Your task to perform on an android device: change keyboard looks Image 0: 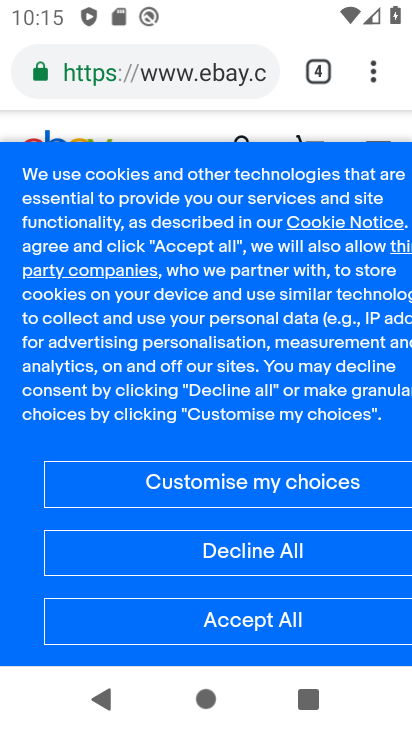
Step 0: press home button
Your task to perform on an android device: change keyboard looks Image 1: 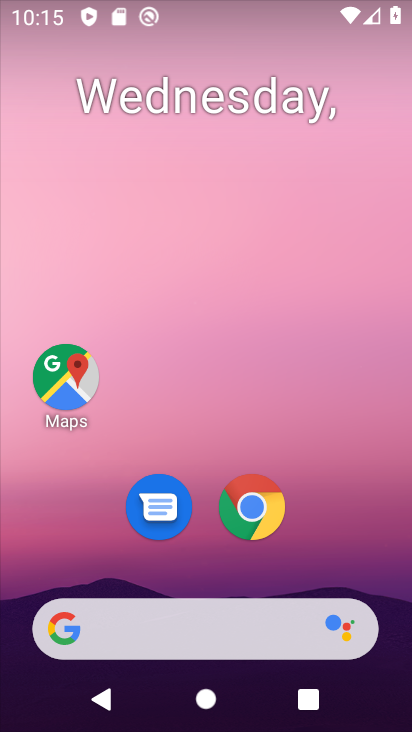
Step 1: drag from (332, 557) to (312, 191)
Your task to perform on an android device: change keyboard looks Image 2: 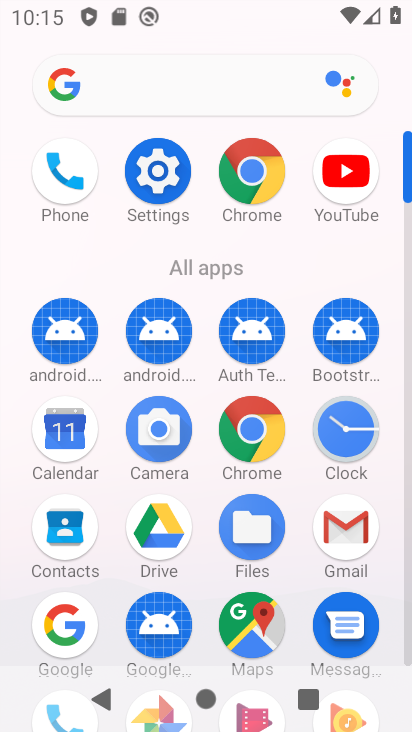
Step 2: click (138, 170)
Your task to perform on an android device: change keyboard looks Image 3: 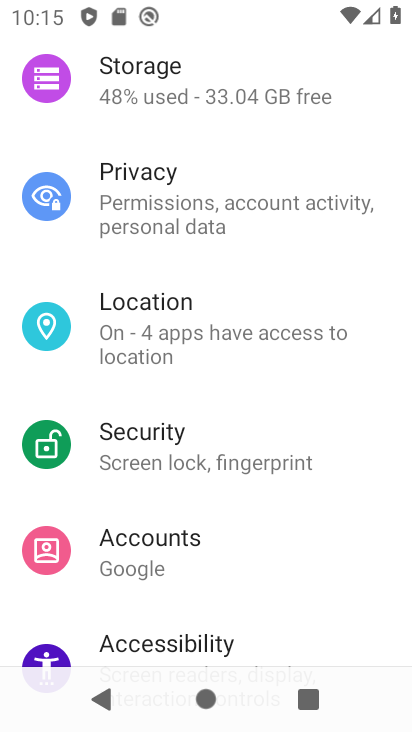
Step 3: drag from (240, 578) to (258, 279)
Your task to perform on an android device: change keyboard looks Image 4: 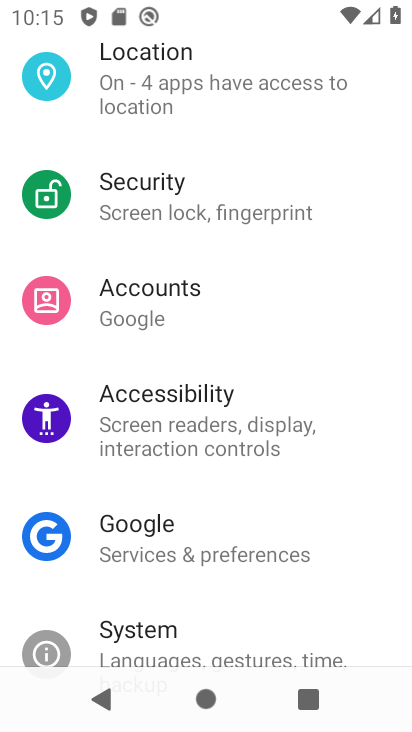
Step 4: drag from (191, 518) to (235, 368)
Your task to perform on an android device: change keyboard looks Image 5: 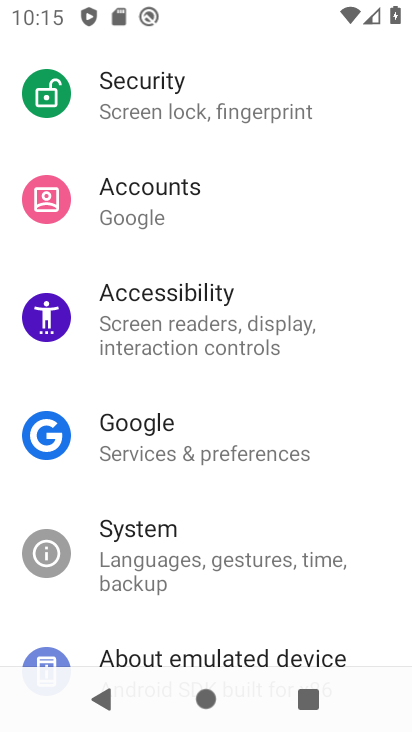
Step 5: click (159, 560)
Your task to perform on an android device: change keyboard looks Image 6: 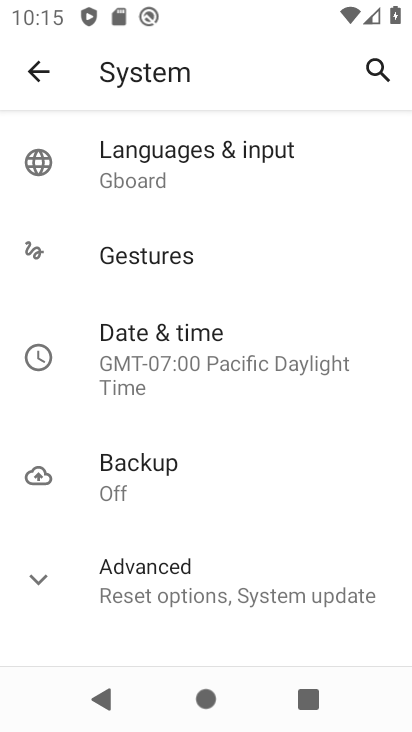
Step 6: click (159, 176)
Your task to perform on an android device: change keyboard looks Image 7: 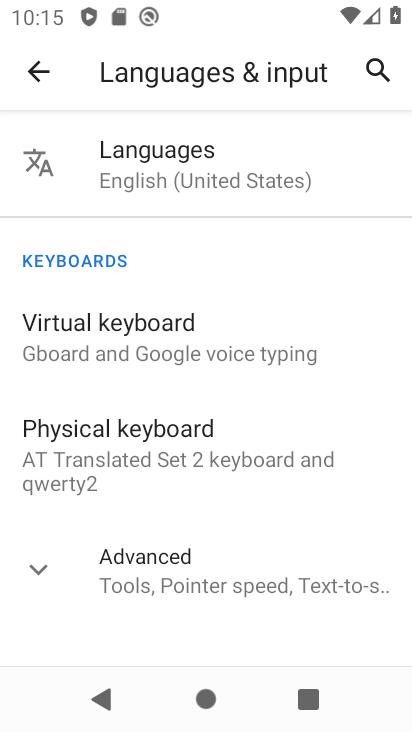
Step 7: click (147, 319)
Your task to perform on an android device: change keyboard looks Image 8: 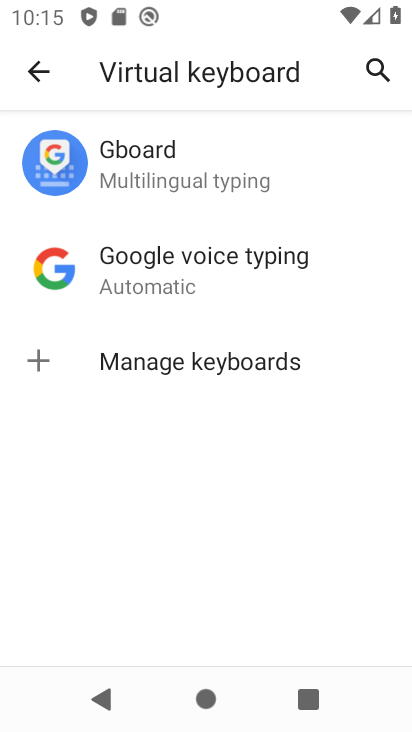
Step 8: click (197, 168)
Your task to perform on an android device: change keyboard looks Image 9: 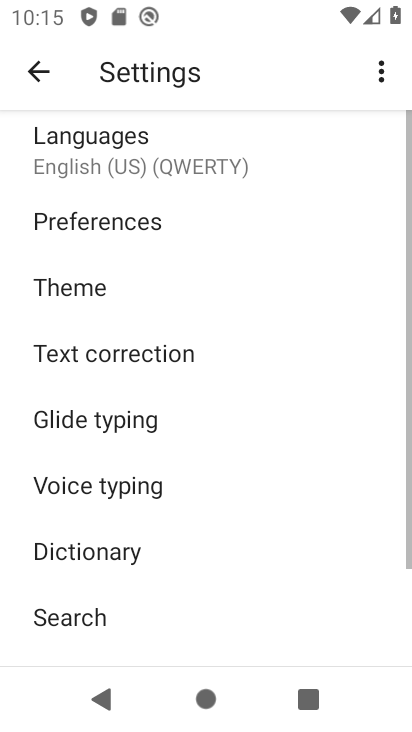
Step 9: click (106, 276)
Your task to perform on an android device: change keyboard looks Image 10: 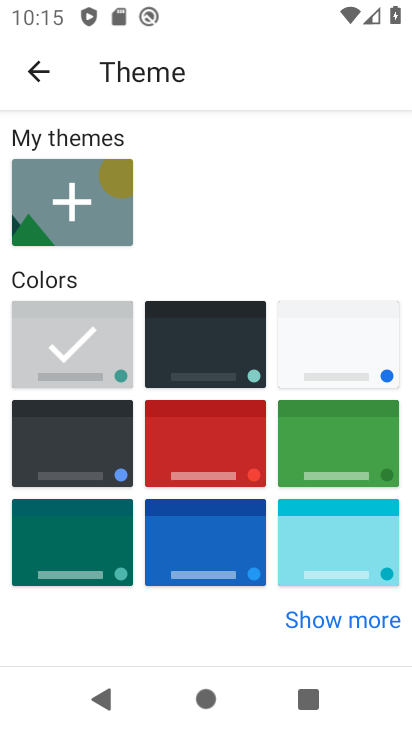
Step 10: click (273, 557)
Your task to perform on an android device: change keyboard looks Image 11: 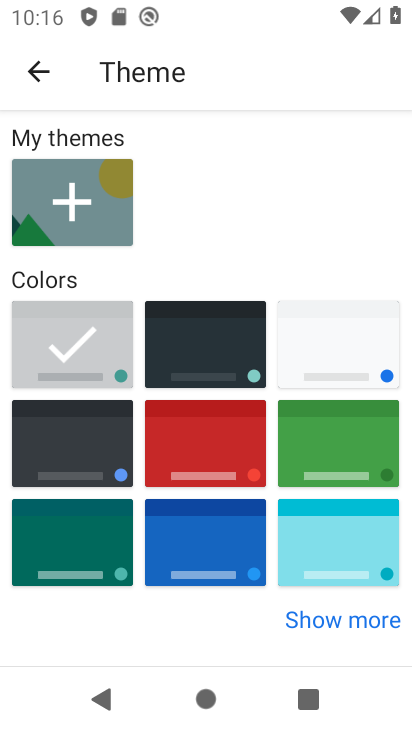
Step 11: click (319, 548)
Your task to perform on an android device: change keyboard looks Image 12: 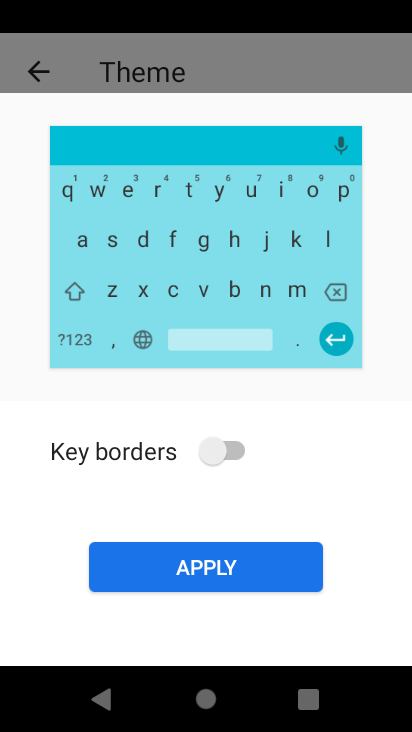
Step 12: click (231, 454)
Your task to perform on an android device: change keyboard looks Image 13: 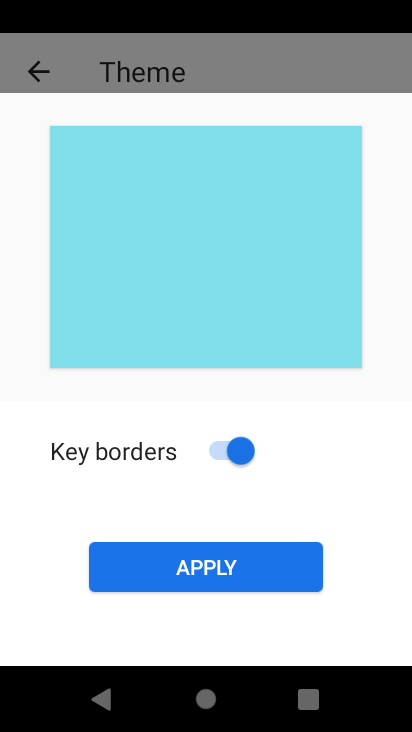
Step 13: click (236, 554)
Your task to perform on an android device: change keyboard looks Image 14: 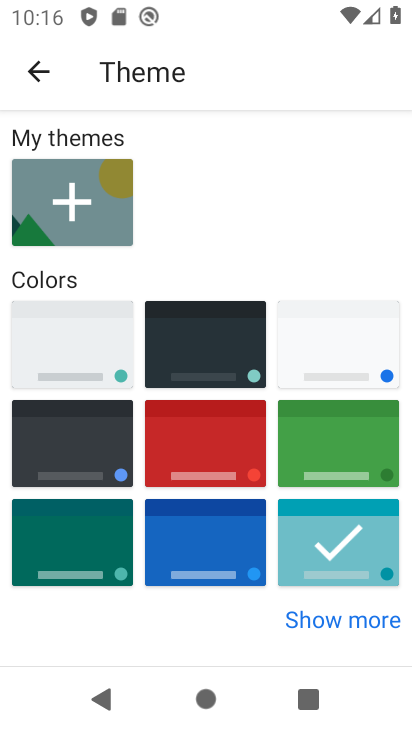
Step 14: click (217, 540)
Your task to perform on an android device: change keyboard looks Image 15: 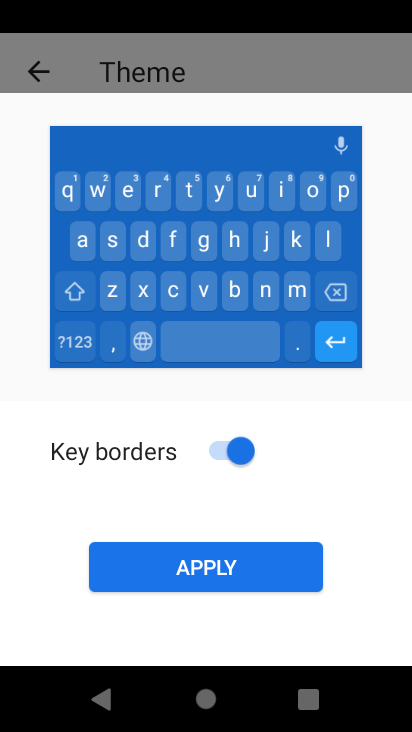
Step 15: click (215, 550)
Your task to perform on an android device: change keyboard looks Image 16: 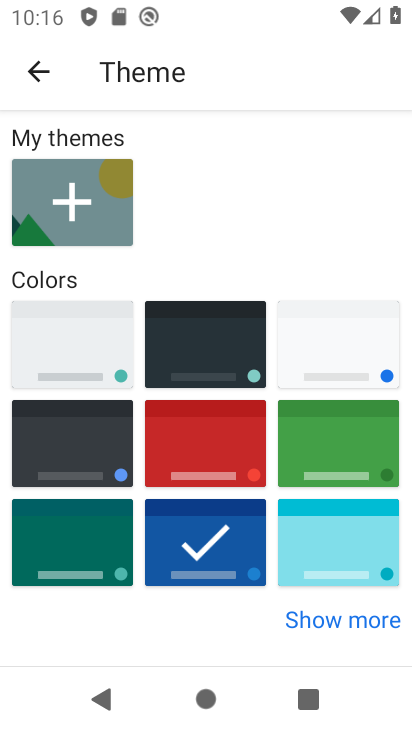
Step 16: task complete